Your task to perform on an android device: turn pop-ups off in chrome Image 0: 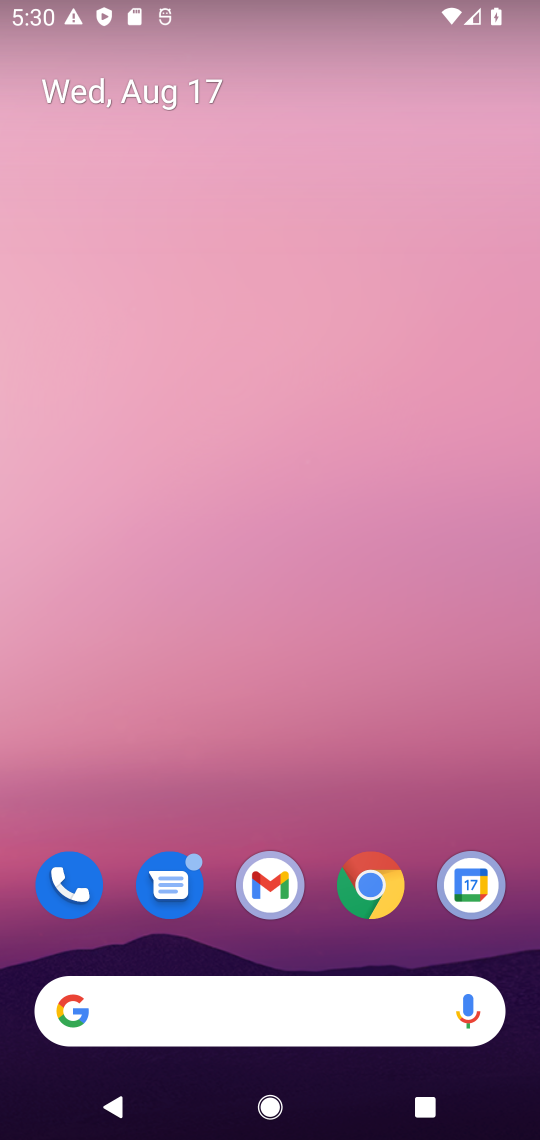
Step 0: drag from (200, 828) to (453, 266)
Your task to perform on an android device: turn pop-ups off in chrome Image 1: 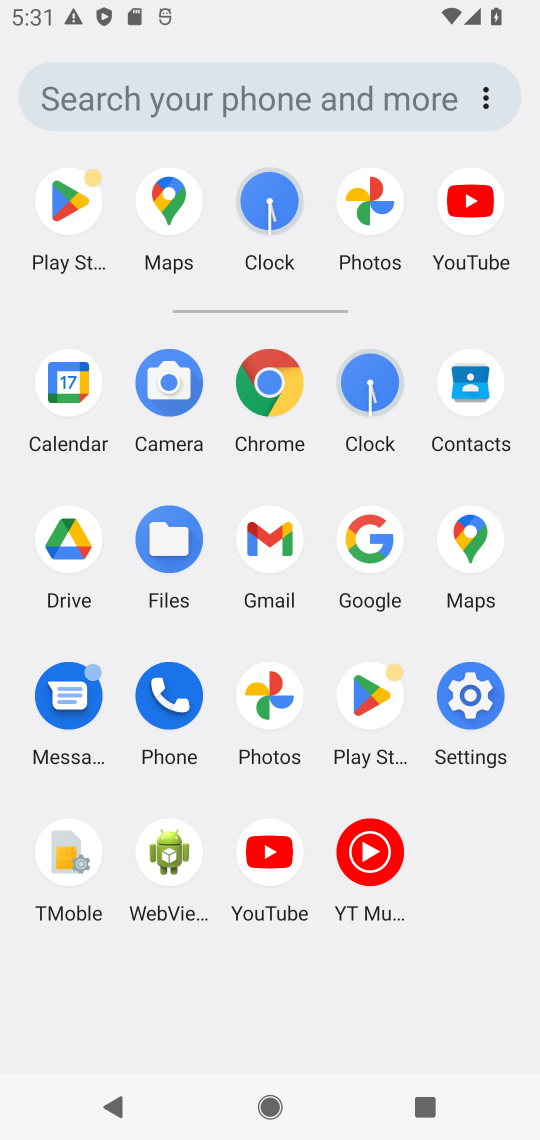
Step 1: click (267, 375)
Your task to perform on an android device: turn pop-ups off in chrome Image 2: 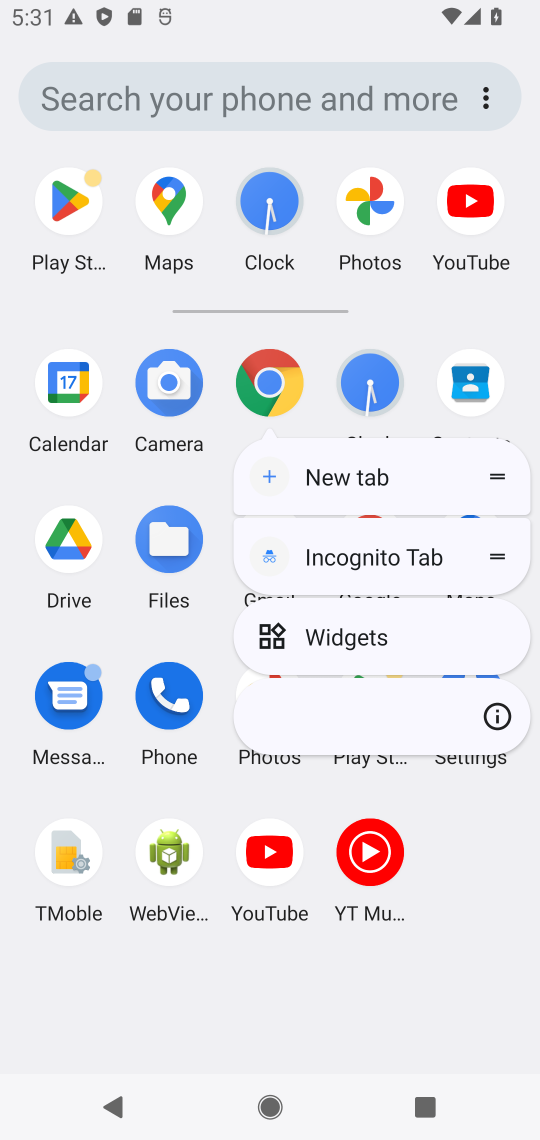
Step 2: click (276, 392)
Your task to perform on an android device: turn pop-ups off in chrome Image 3: 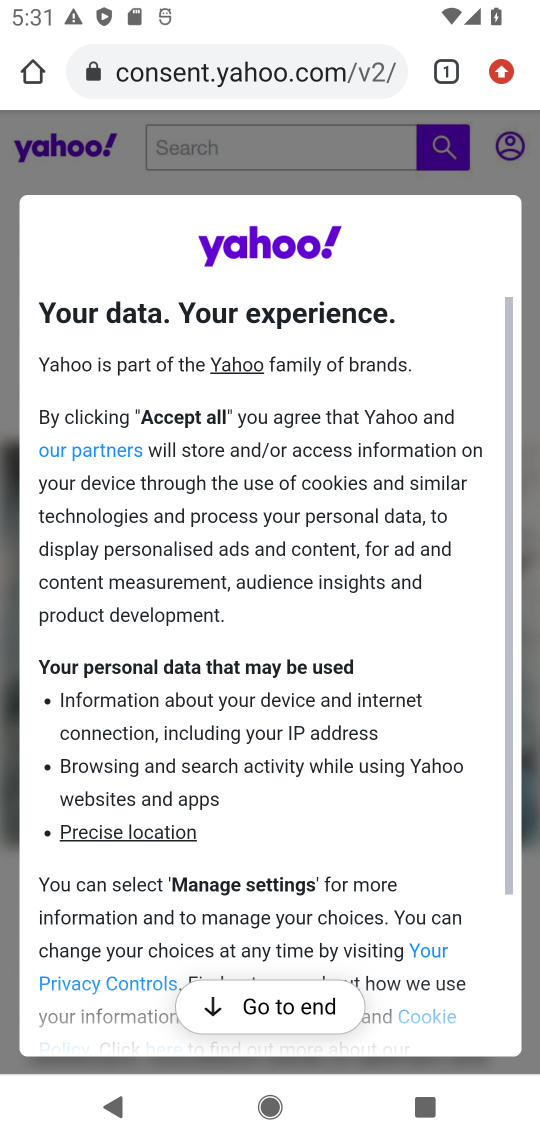
Step 3: drag from (524, 45) to (313, 922)
Your task to perform on an android device: turn pop-ups off in chrome Image 4: 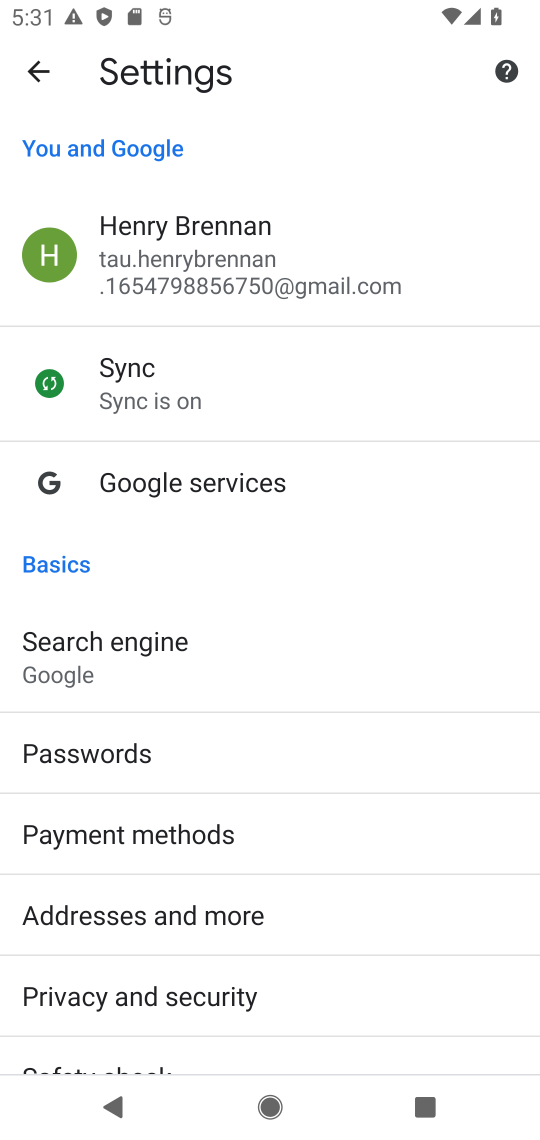
Step 4: drag from (170, 970) to (411, 251)
Your task to perform on an android device: turn pop-ups off in chrome Image 5: 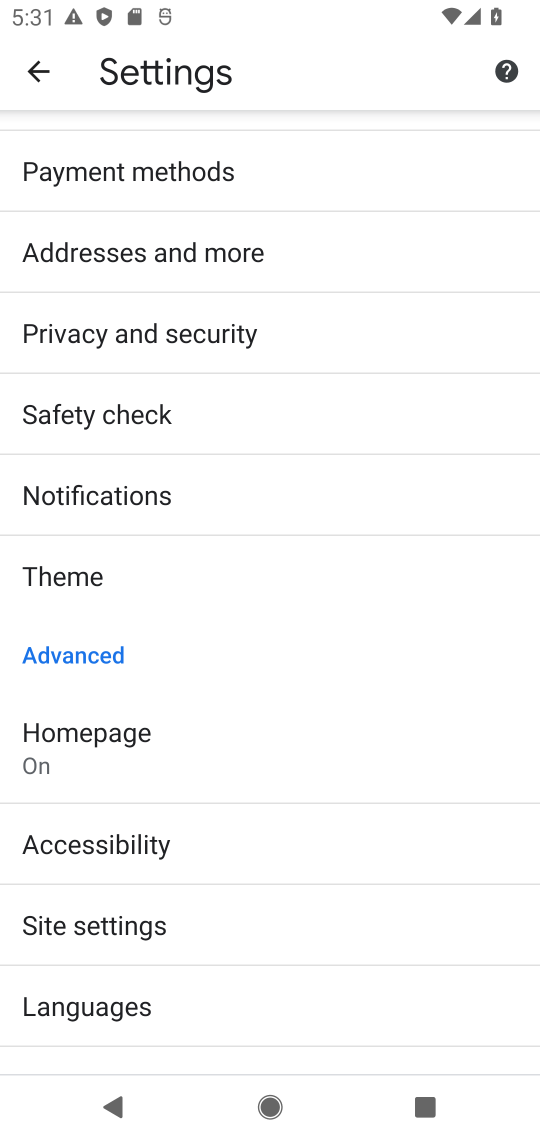
Step 5: click (131, 921)
Your task to perform on an android device: turn pop-ups off in chrome Image 6: 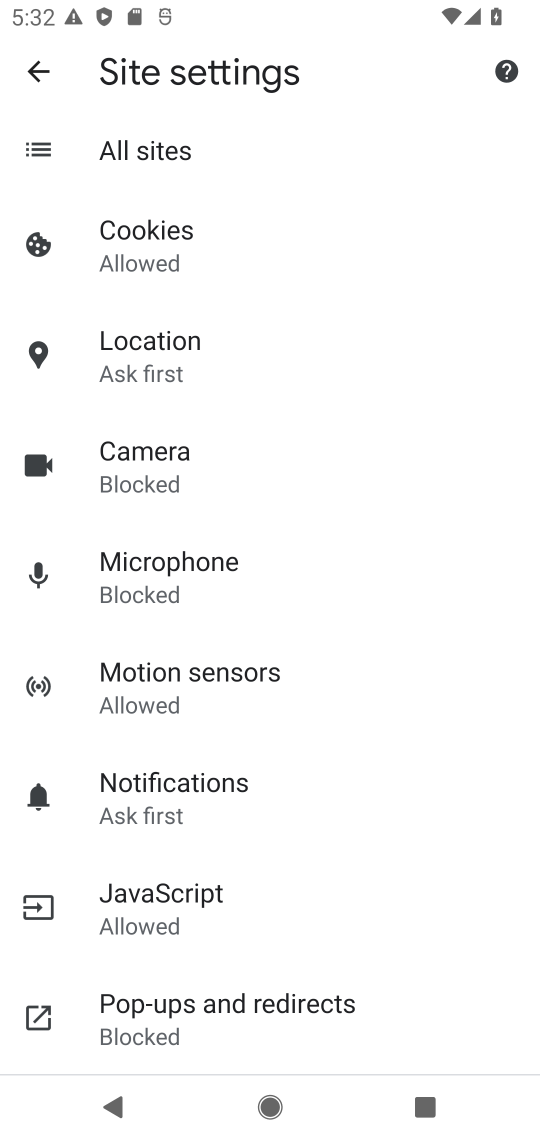
Step 6: click (356, 988)
Your task to perform on an android device: turn pop-ups off in chrome Image 7: 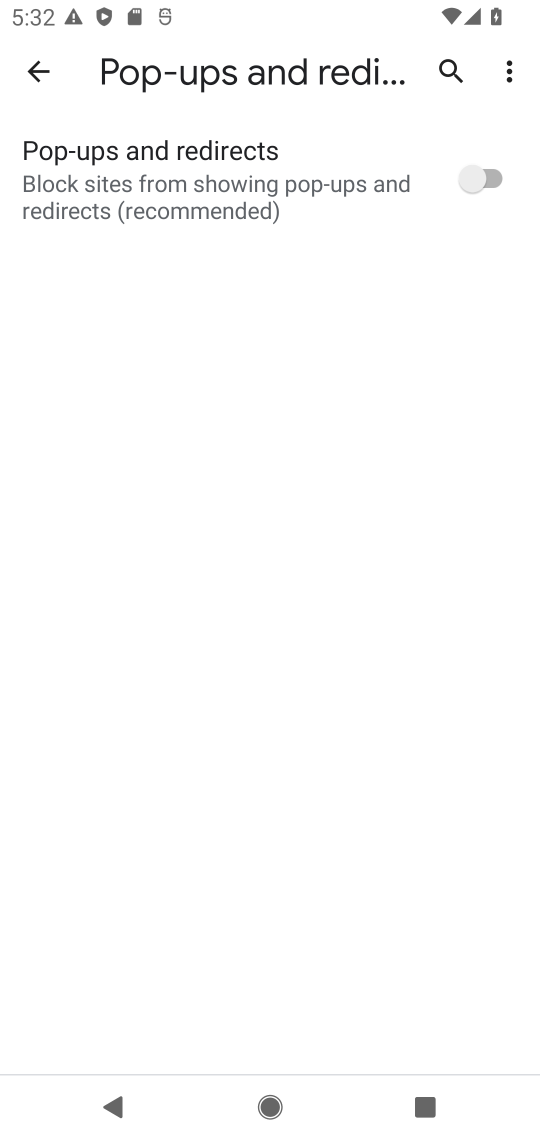
Step 7: task complete